Your task to perform on an android device: change keyboard looks Image 0: 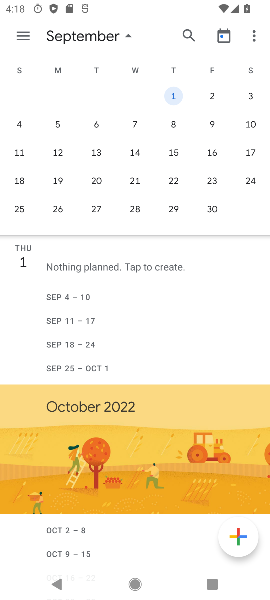
Step 0: press back button
Your task to perform on an android device: change keyboard looks Image 1: 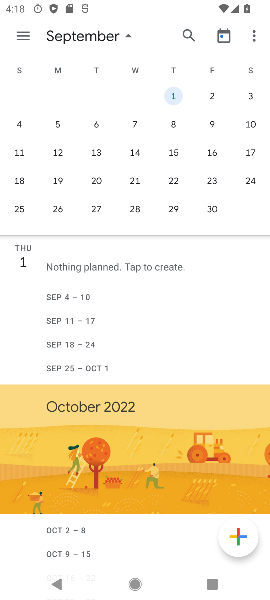
Step 1: press back button
Your task to perform on an android device: change keyboard looks Image 2: 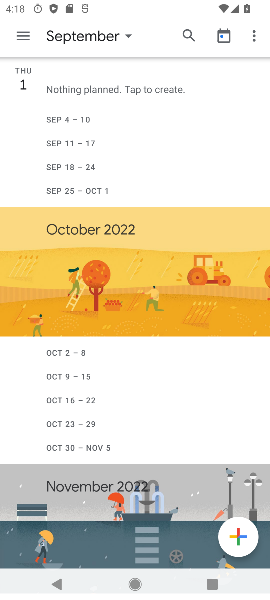
Step 2: press back button
Your task to perform on an android device: change keyboard looks Image 3: 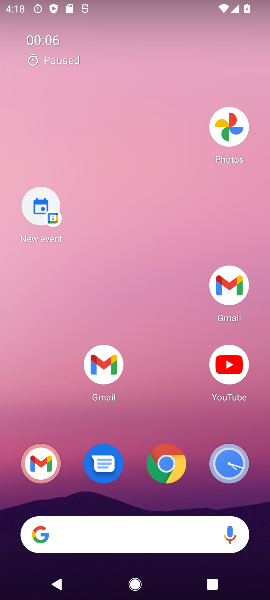
Step 3: press back button
Your task to perform on an android device: change keyboard looks Image 4: 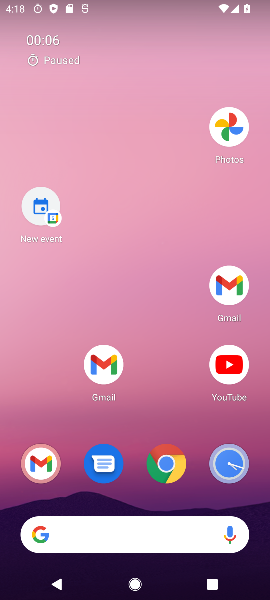
Step 4: drag from (149, 549) to (139, 138)
Your task to perform on an android device: change keyboard looks Image 5: 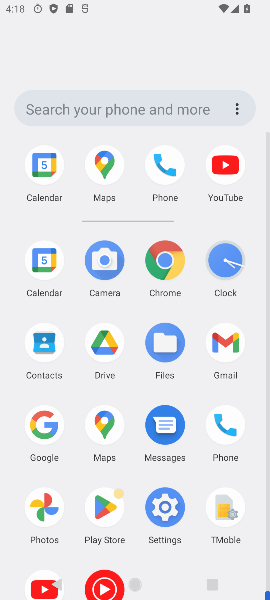
Step 5: drag from (148, 490) to (134, 164)
Your task to perform on an android device: change keyboard looks Image 6: 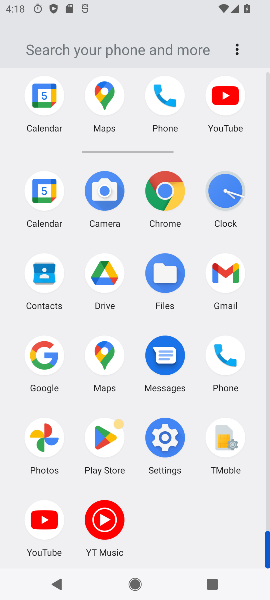
Step 6: click (157, 439)
Your task to perform on an android device: change keyboard looks Image 7: 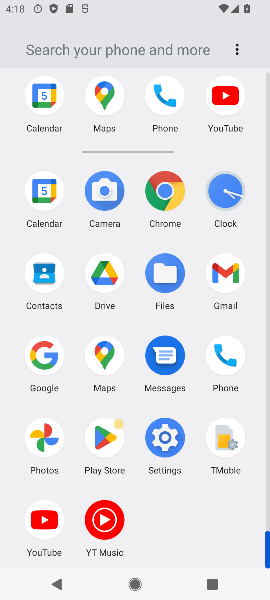
Step 7: click (160, 435)
Your task to perform on an android device: change keyboard looks Image 8: 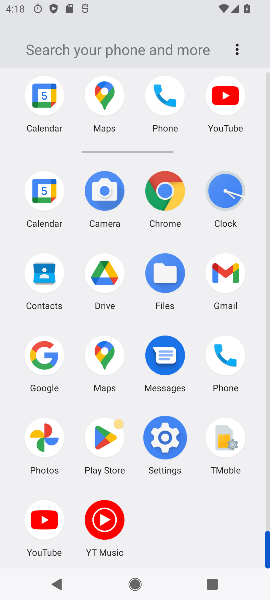
Step 8: click (160, 435)
Your task to perform on an android device: change keyboard looks Image 9: 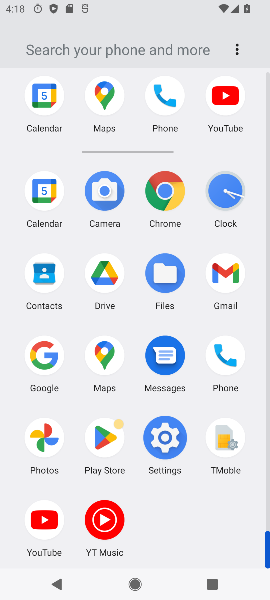
Step 9: click (160, 435)
Your task to perform on an android device: change keyboard looks Image 10: 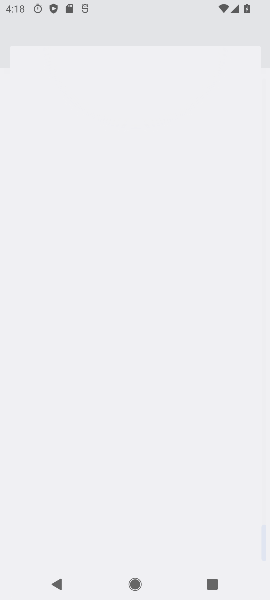
Step 10: click (161, 435)
Your task to perform on an android device: change keyboard looks Image 11: 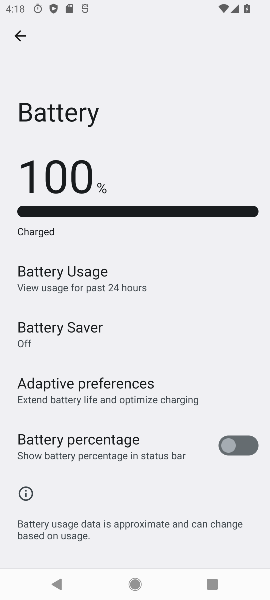
Step 11: drag from (87, 446) to (79, 204)
Your task to perform on an android device: change keyboard looks Image 12: 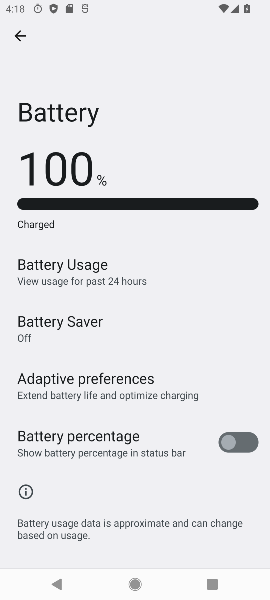
Step 12: drag from (102, 399) to (85, 241)
Your task to perform on an android device: change keyboard looks Image 13: 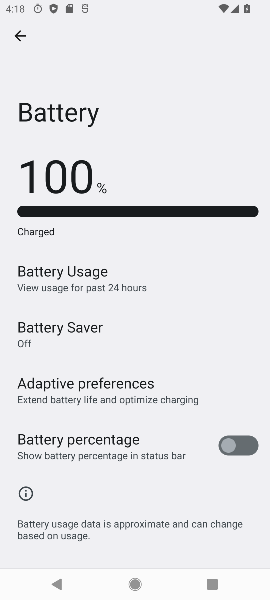
Step 13: click (16, 35)
Your task to perform on an android device: change keyboard looks Image 14: 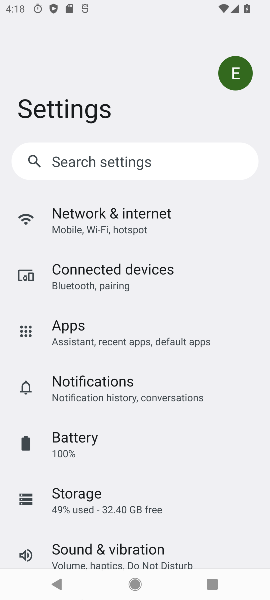
Step 14: drag from (121, 495) to (146, 222)
Your task to perform on an android device: change keyboard looks Image 15: 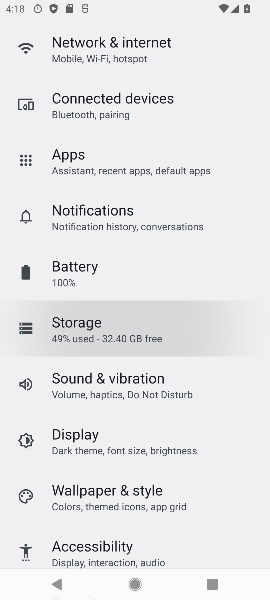
Step 15: drag from (139, 467) to (132, 218)
Your task to perform on an android device: change keyboard looks Image 16: 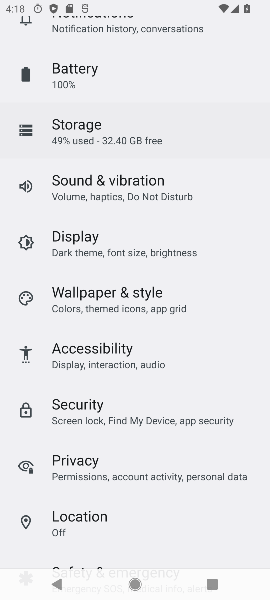
Step 16: drag from (130, 441) to (116, 253)
Your task to perform on an android device: change keyboard looks Image 17: 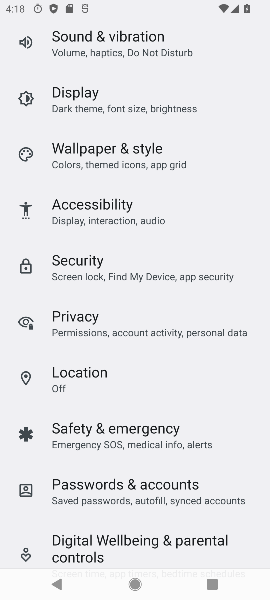
Step 17: drag from (129, 478) to (137, 271)
Your task to perform on an android device: change keyboard looks Image 18: 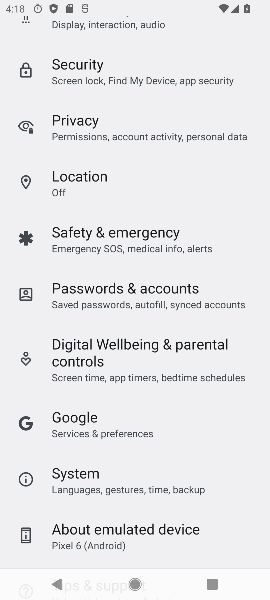
Step 18: drag from (138, 410) to (116, 224)
Your task to perform on an android device: change keyboard looks Image 19: 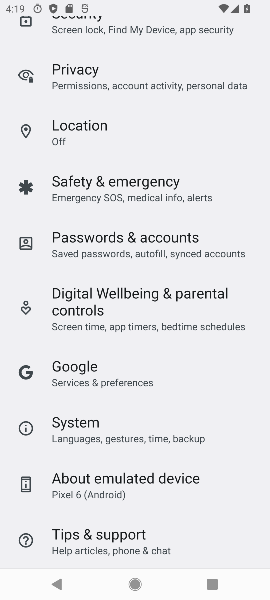
Step 19: click (73, 433)
Your task to perform on an android device: change keyboard looks Image 20: 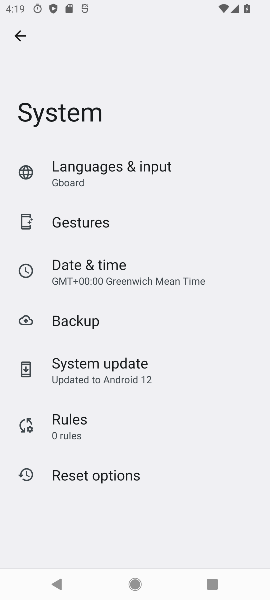
Step 20: click (77, 168)
Your task to perform on an android device: change keyboard looks Image 21: 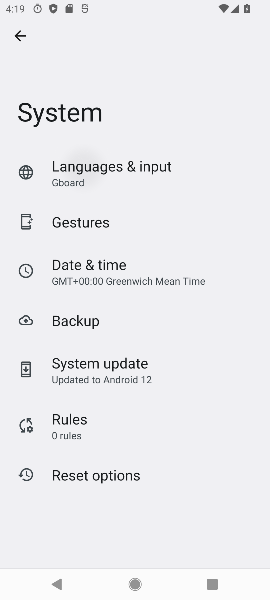
Step 21: click (77, 168)
Your task to perform on an android device: change keyboard looks Image 22: 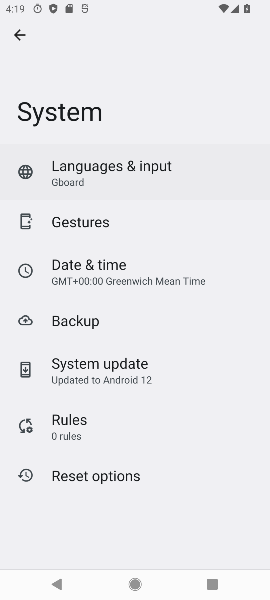
Step 22: click (77, 168)
Your task to perform on an android device: change keyboard looks Image 23: 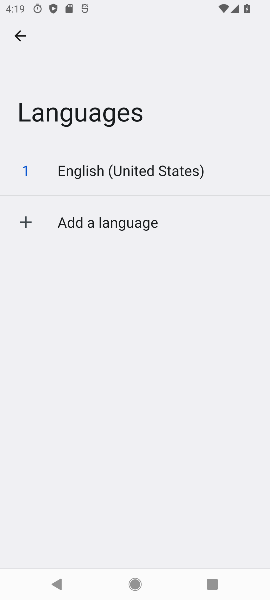
Step 23: click (17, 28)
Your task to perform on an android device: change keyboard looks Image 24: 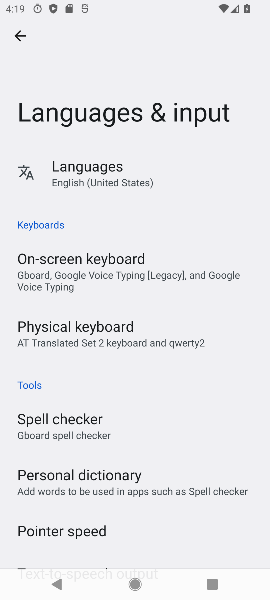
Step 24: click (46, 271)
Your task to perform on an android device: change keyboard looks Image 25: 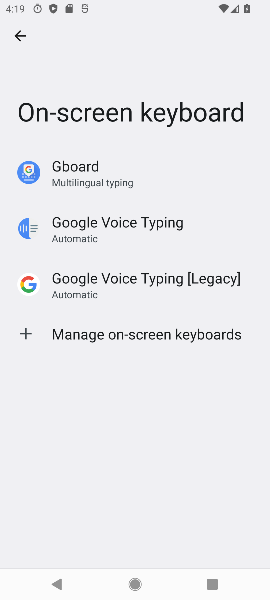
Step 25: click (75, 180)
Your task to perform on an android device: change keyboard looks Image 26: 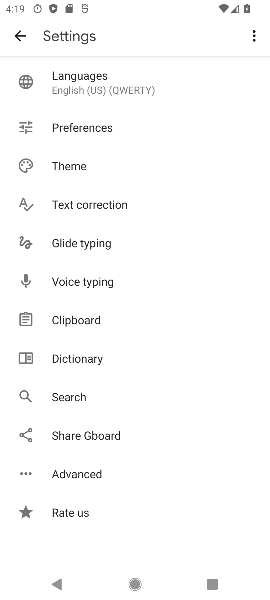
Step 26: click (62, 166)
Your task to perform on an android device: change keyboard looks Image 27: 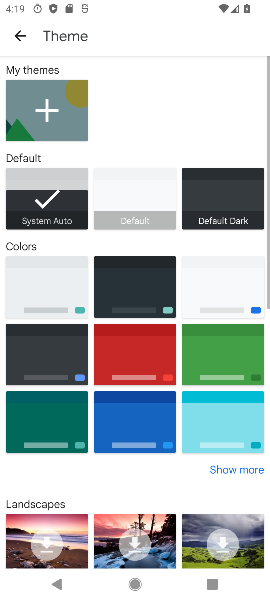
Step 27: click (24, 306)
Your task to perform on an android device: change keyboard looks Image 28: 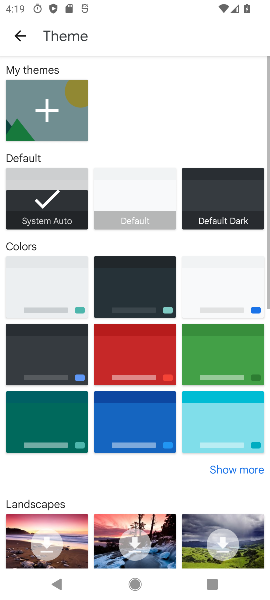
Step 28: click (41, 338)
Your task to perform on an android device: change keyboard looks Image 29: 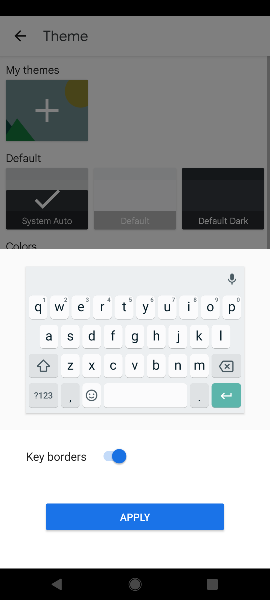
Step 29: click (145, 519)
Your task to perform on an android device: change keyboard looks Image 30: 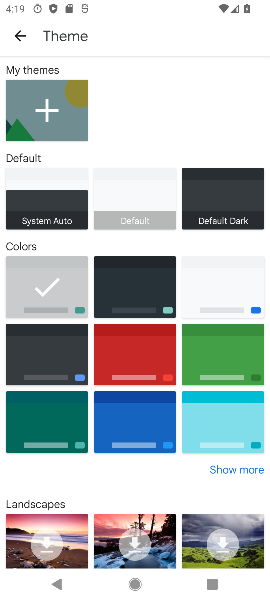
Step 30: task complete